Your task to perform on an android device: toggle notification dots Image 0: 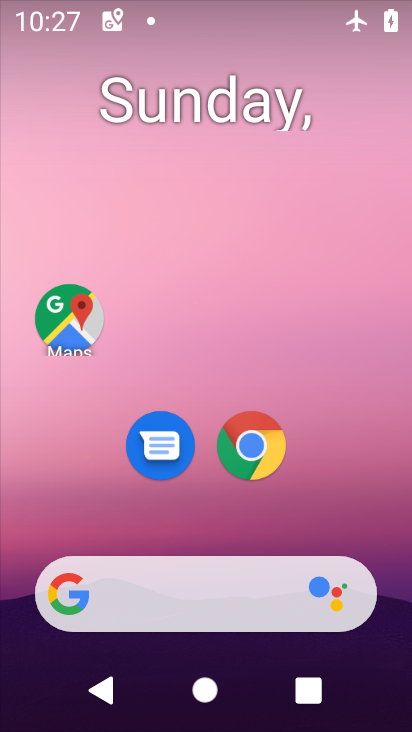
Step 0: drag from (168, 525) to (287, 2)
Your task to perform on an android device: toggle notification dots Image 1: 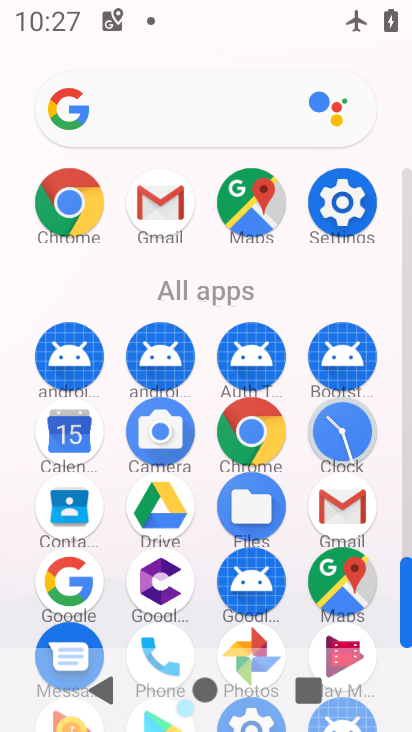
Step 1: click (325, 220)
Your task to perform on an android device: toggle notification dots Image 2: 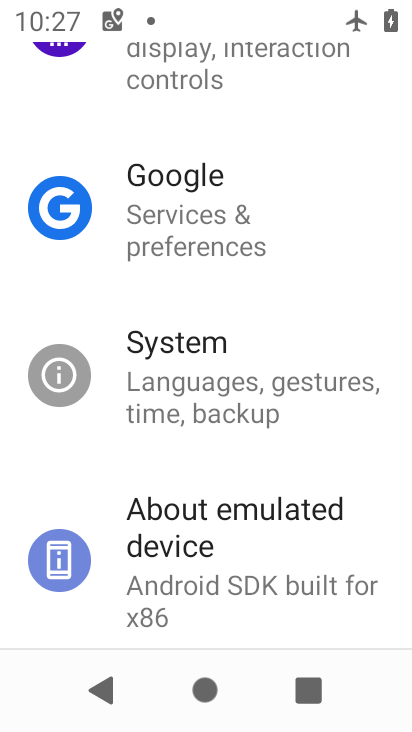
Step 2: drag from (221, 266) to (213, 687)
Your task to perform on an android device: toggle notification dots Image 3: 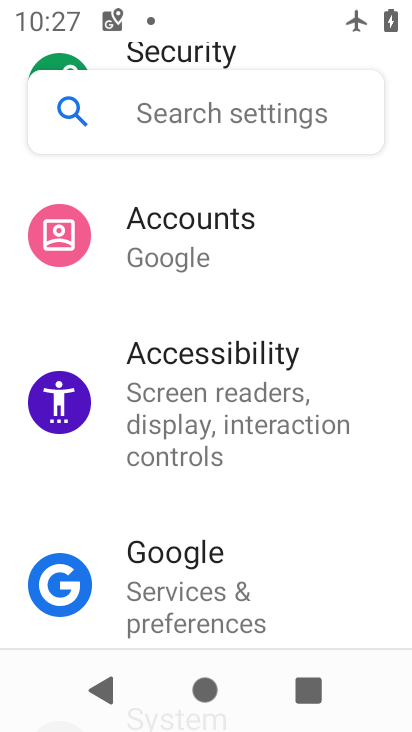
Step 3: drag from (255, 240) to (262, 664)
Your task to perform on an android device: toggle notification dots Image 4: 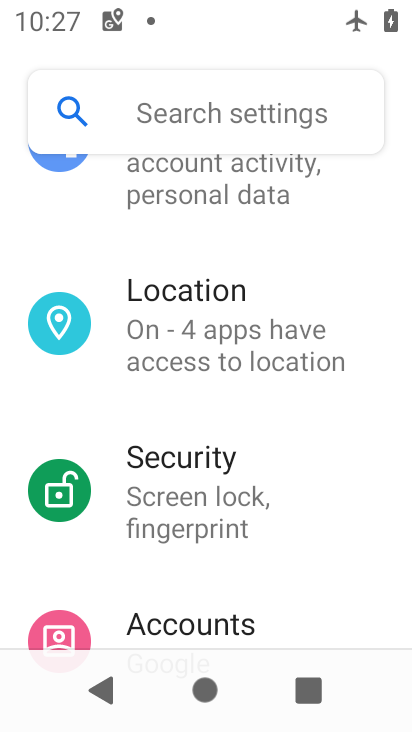
Step 4: drag from (244, 242) to (244, 594)
Your task to perform on an android device: toggle notification dots Image 5: 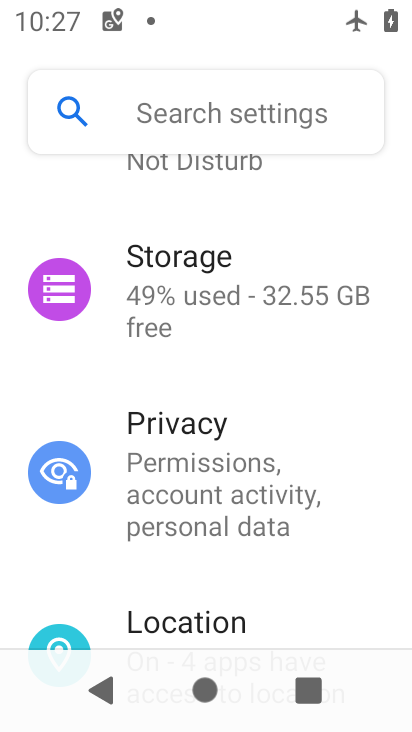
Step 5: drag from (232, 240) to (233, 507)
Your task to perform on an android device: toggle notification dots Image 6: 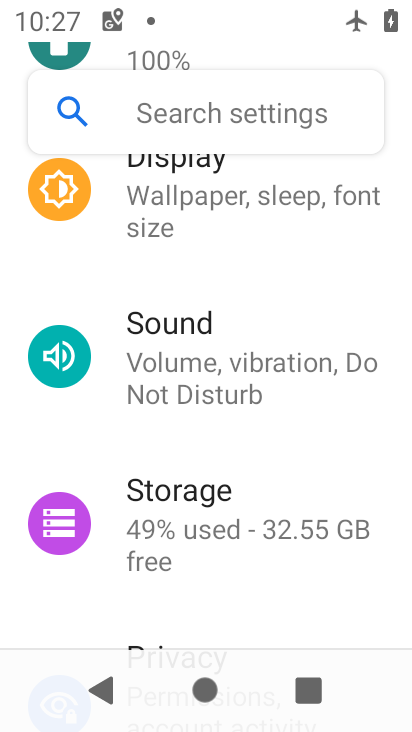
Step 6: drag from (226, 227) to (224, 621)
Your task to perform on an android device: toggle notification dots Image 7: 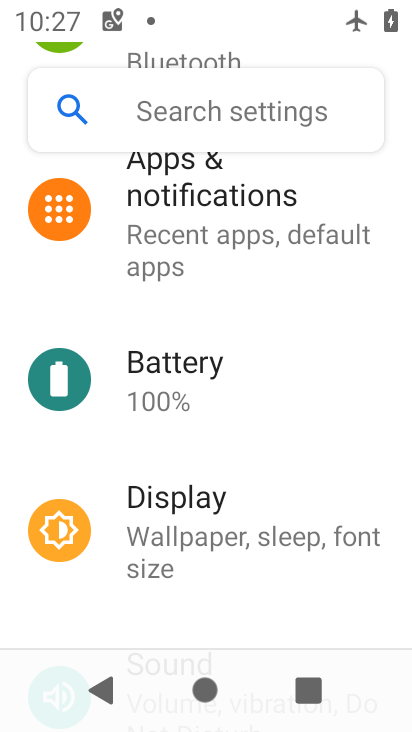
Step 7: click (216, 232)
Your task to perform on an android device: toggle notification dots Image 8: 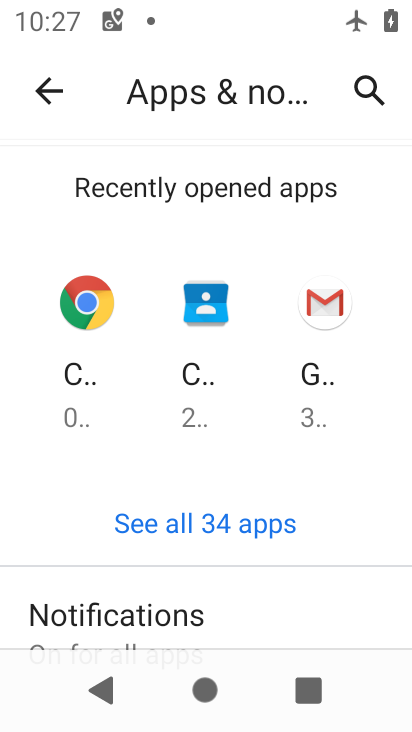
Step 8: drag from (223, 539) to (199, 110)
Your task to perform on an android device: toggle notification dots Image 9: 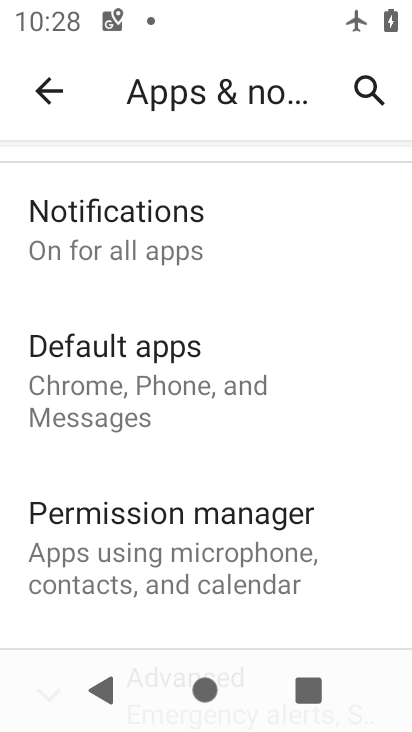
Step 9: drag from (235, 516) to (223, 307)
Your task to perform on an android device: toggle notification dots Image 10: 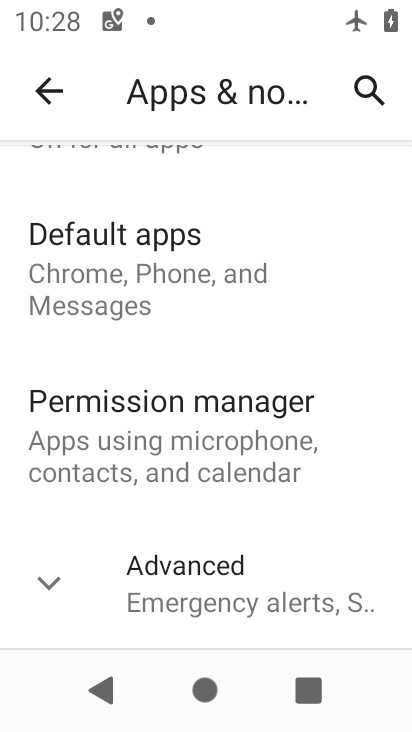
Step 10: click (226, 560)
Your task to perform on an android device: toggle notification dots Image 11: 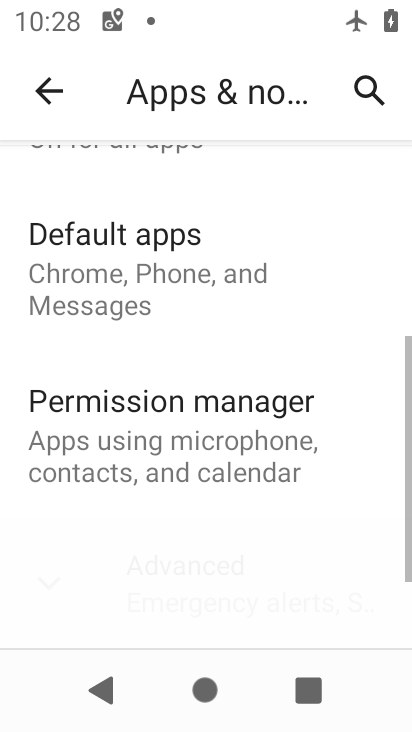
Step 11: drag from (225, 561) to (225, 237)
Your task to perform on an android device: toggle notification dots Image 12: 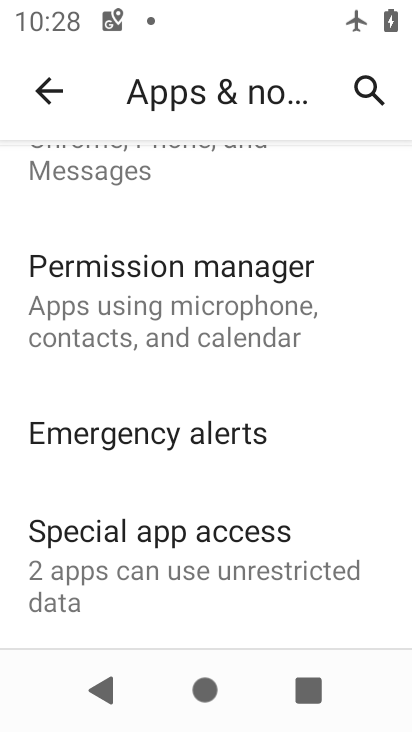
Step 12: drag from (231, 541) to (214, 716)
Your task to perform on an android device: toggle notification dots Image 13: 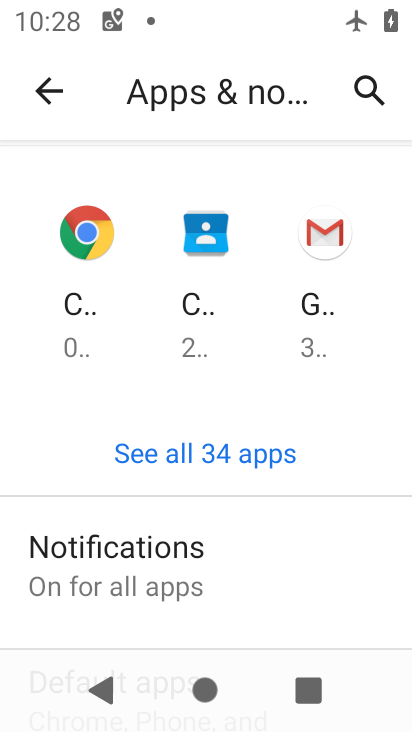
Step 13: click (186, 395)
Your task to perform on an android device: toggle notification dots Image 14: 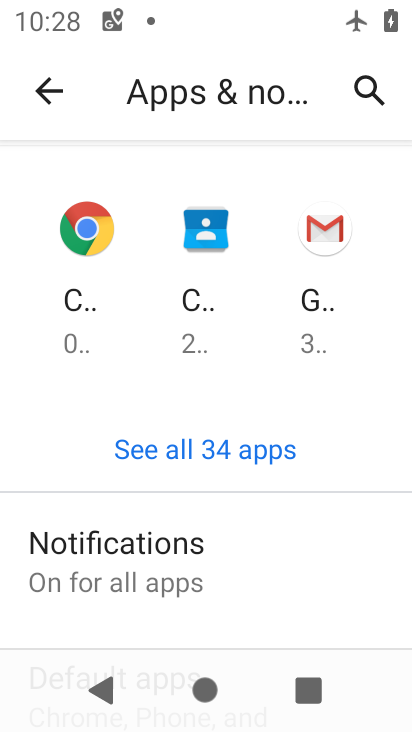
Step 14: click (182, 571)
Your task to perform on an android device: toggle notification dots Image 15: 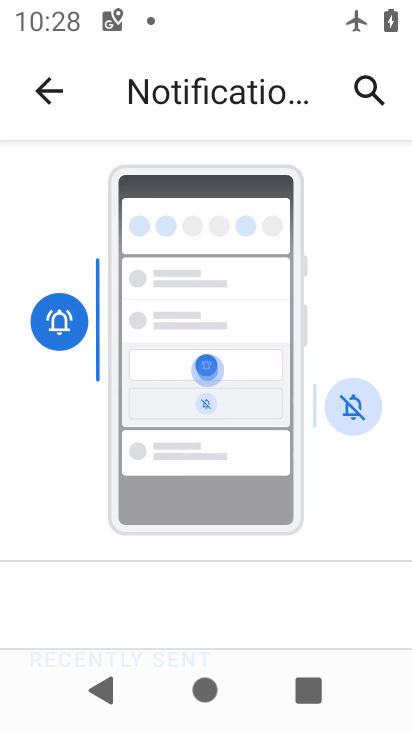
Step 15: drag from (204, 395) to (178, 56)
Your task to perform on an android device: toggle notification dots Image 16: 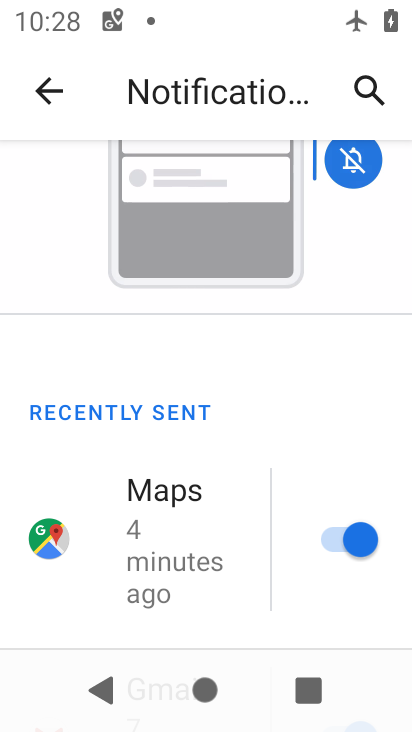
Step 16: drag from (255, 515) to (234, 60)
Your task to perform on an android device: toggle notification dots Image 17: 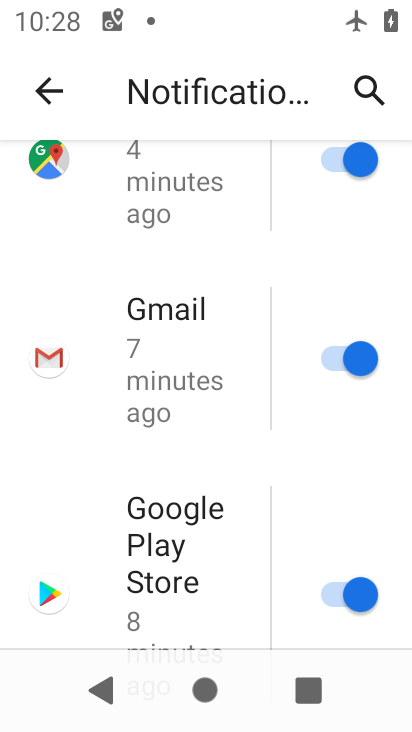
Step 17: drag from (268, 490) to (236, 0)
Your task to perform on an android device: toggle notification dots Image 18: 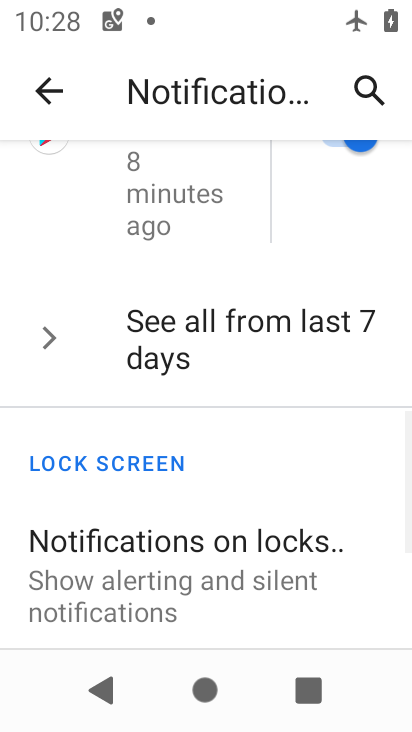
Step 18: drag from (238, 572) to (213, 88)
Your task to perform on an android device: toggle notification dots Image 19: 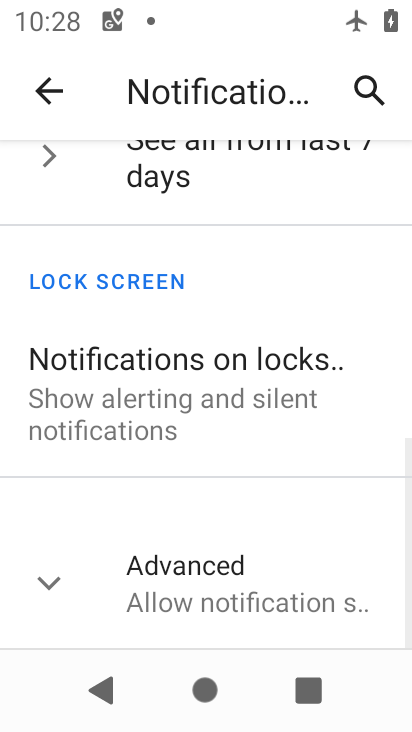
Step 19: click (248, 583)
Your task to perform on an android device: toggle notification dots Image 20: 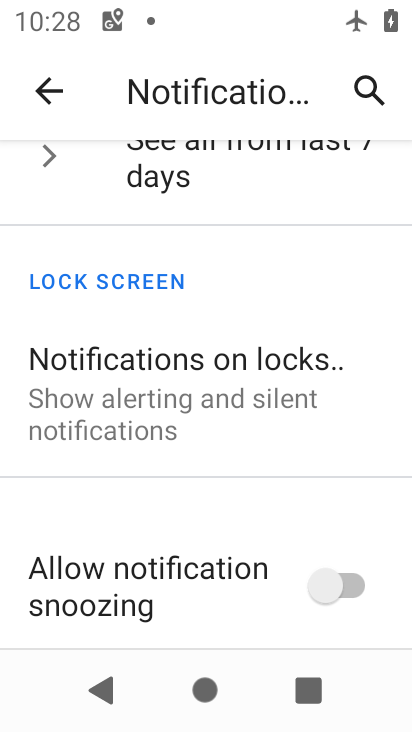
Step 20: drag from (147, 572) to (67, 21)
Your task to perform on an android device: toggle notification dots Image 21: 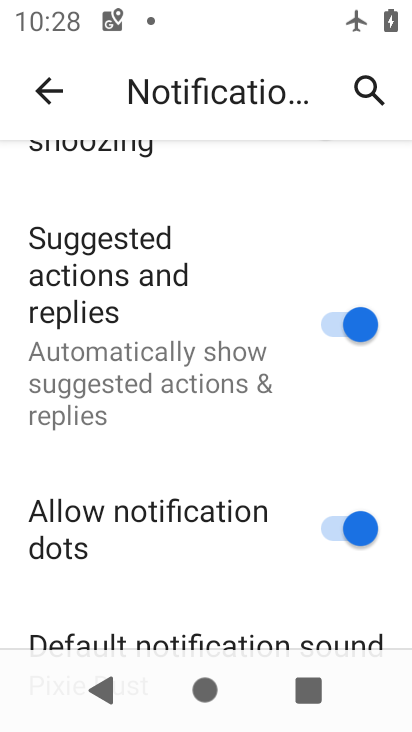
Step 21: click (327, 523)
Your task to perform on an android device: toggle notification dots Image 22: 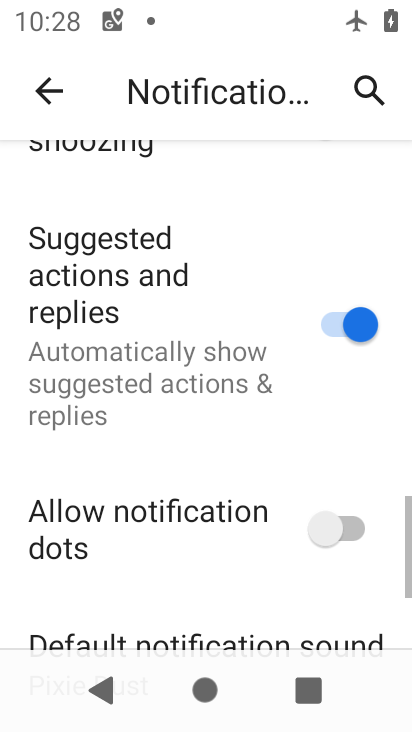
Step 22: task complete